Your task to perform on an android device: see tabs open on other devices in the chrome app Image 0: 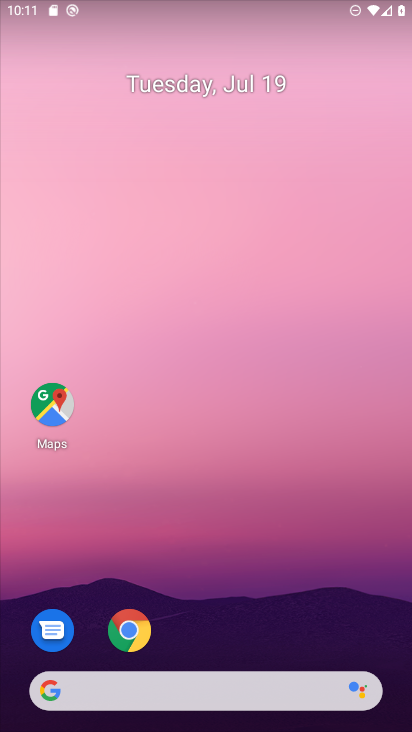
Step 0: click (127, 632)
Your task to perform on an android device: see tabs open on other devices in the chrome app Image 1: 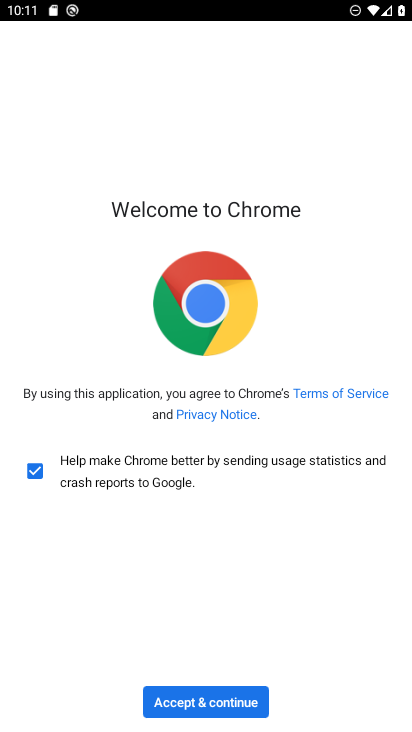
Step 1: click (179, 687)
Your task to perform on an android device: see tabs open on other devices in the chrome app Image 2: 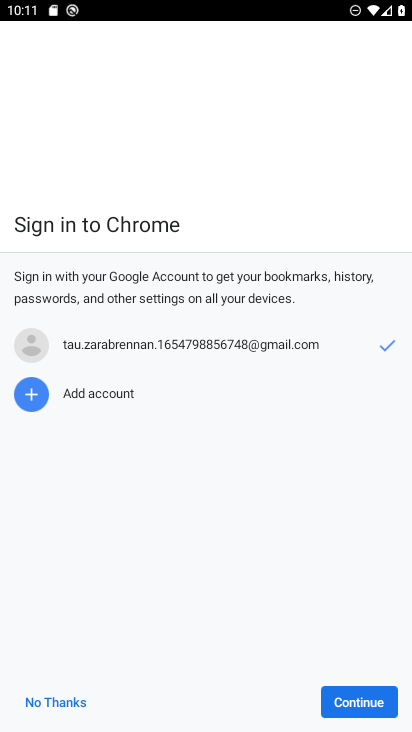
Step 2: click (364, 700)
Your task to perform on an android device: see tabs open on other devices in the chrome app Image 3: 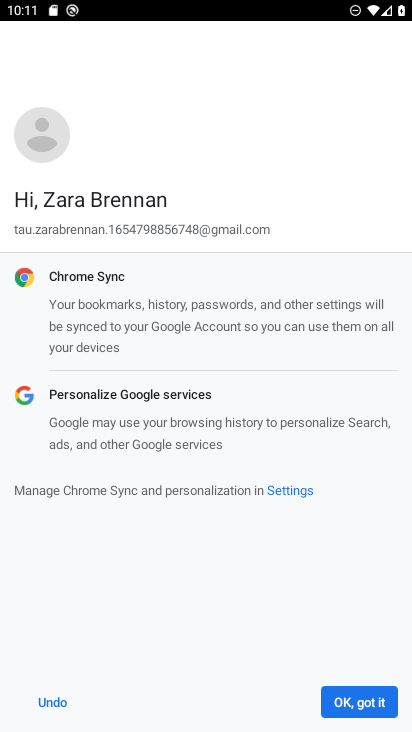
Step 3: click (357, 702)
Your task to perform on an android device: see tabs open on other devices in the chrome app Image 4: 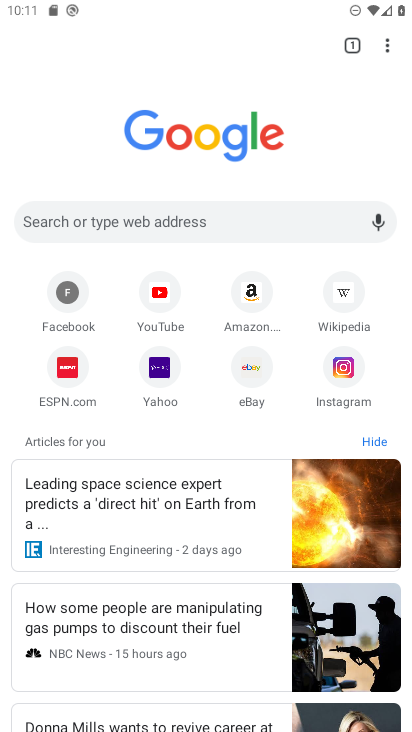
Step 4: click (389, 41)
Your task to perform on an android device: see tabs open on other devices in the chrome app Image 5: 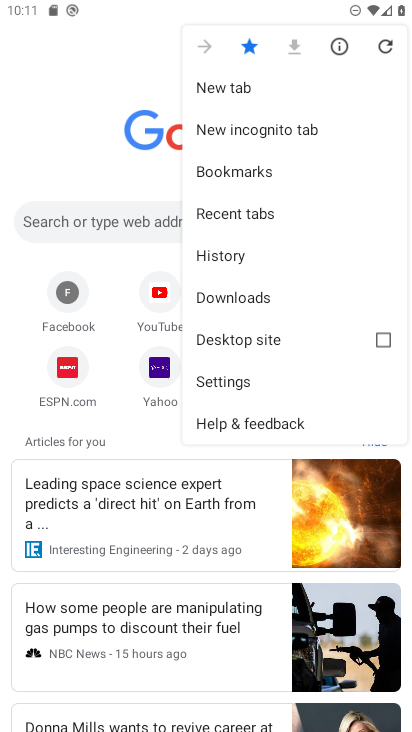
Step 5: click (42, 131)
Your task to perform on an android device: see tabs open on other devices in the chrome app Image 6: 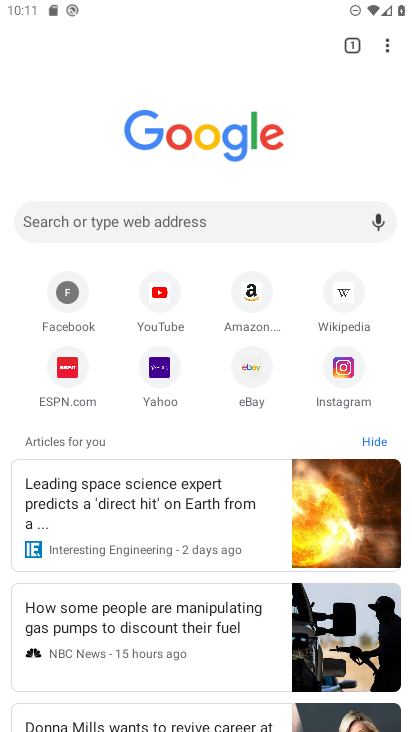
Step 6: click (377, 42)
Your task to perform on an android device: see tabs open on other devices in the chrome app Image 7: 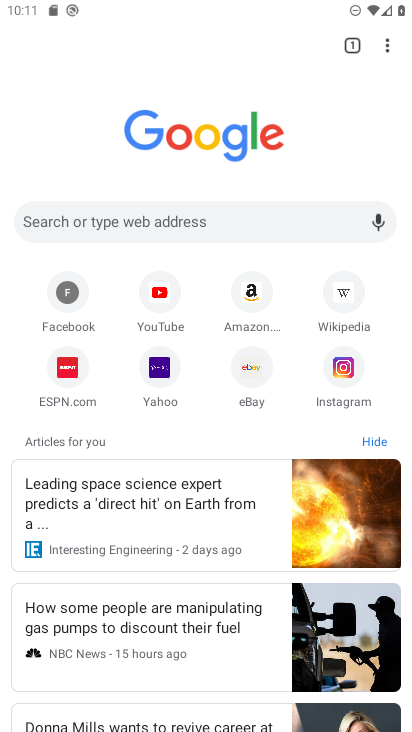
Step 7: click (389, 39)
Your task to perform on an android device: see tabs open on other devices in the chrome app Image 8: 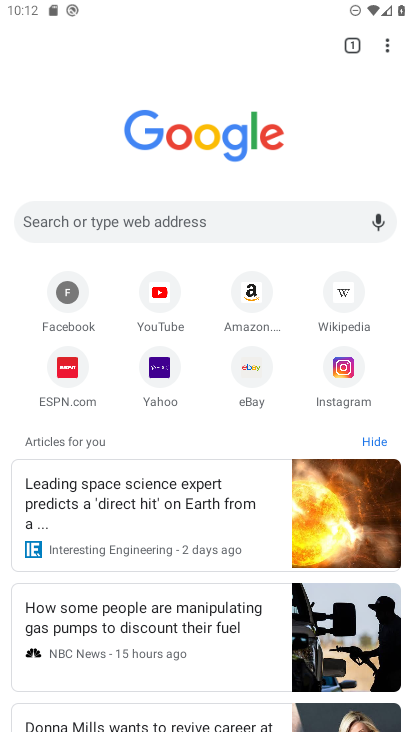
Step 8: click (386, 40)
Your task to perform on an android device: see tabs open on other devices in the chrome app Image 9: 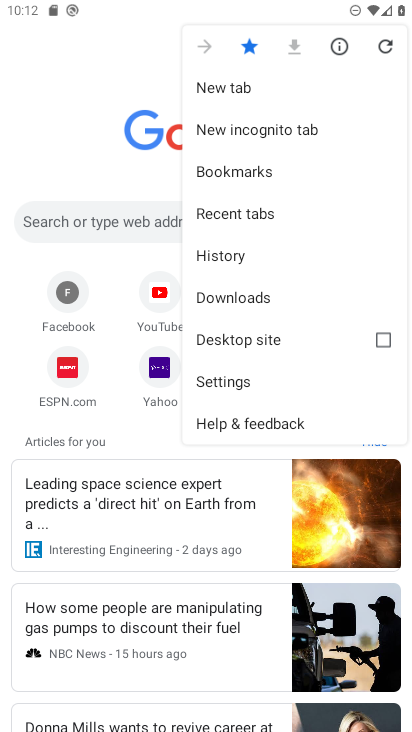
Step 9: click (237, 201)
Your task to perform on an android device: see tabs open on other devices in the chrome app Image 10: 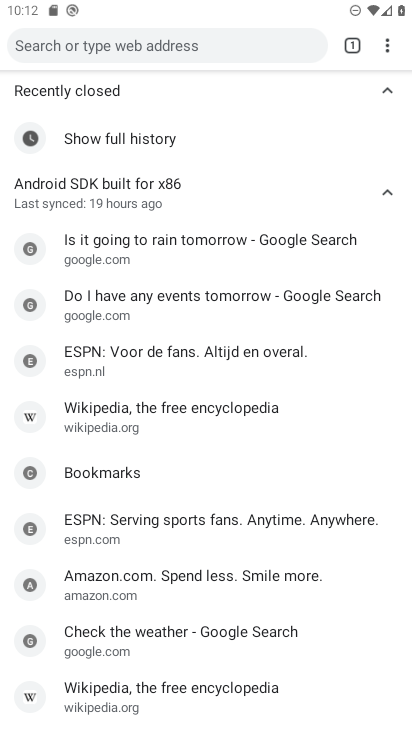
Step 10: task complete